Your task to perform on an android device: change timer sound Image 0: 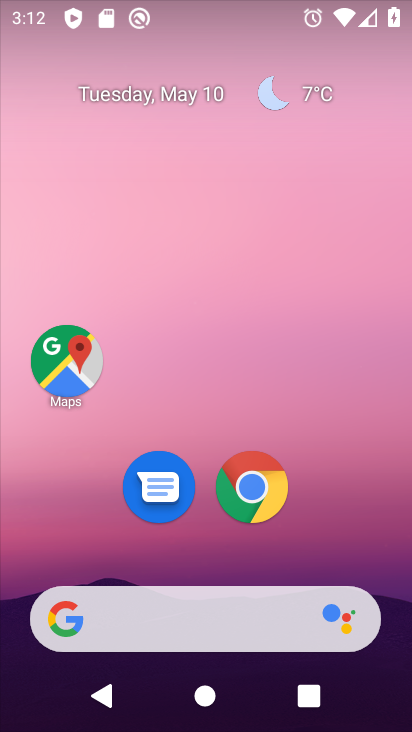
Step 0: drag from (343, 496) to (245, 121)
Your task to perform on an android device: change timer sound Image 1: 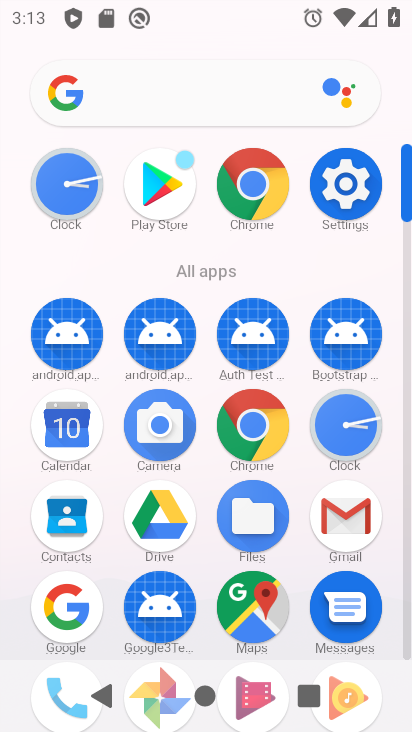
Step 1: click (354, 180)
Your task to perform on an android device: change timer sound Image 2: 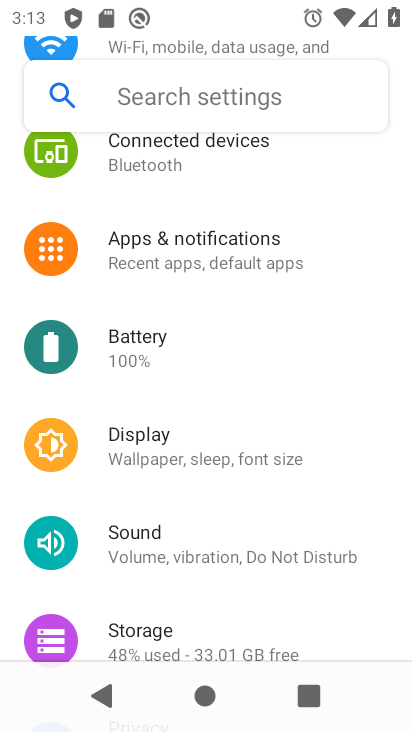
Step 2: drag from (233, 548) to (195, 596)
Your task to perform on an android device: change timer sound Image 3: 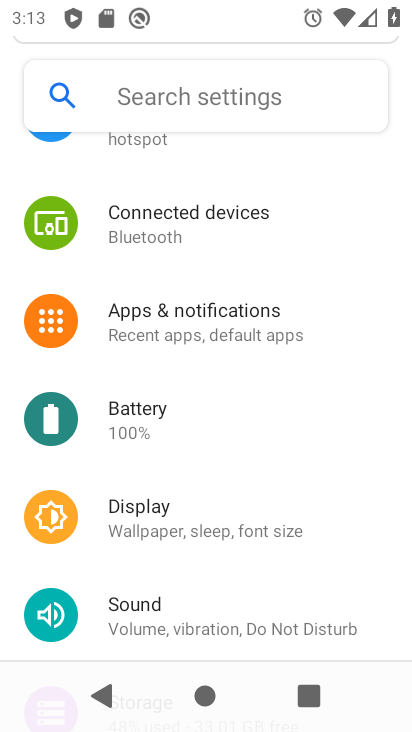
Step 3: click (148, 611)
Your task to perform on an android device: change timer sound Image 4: 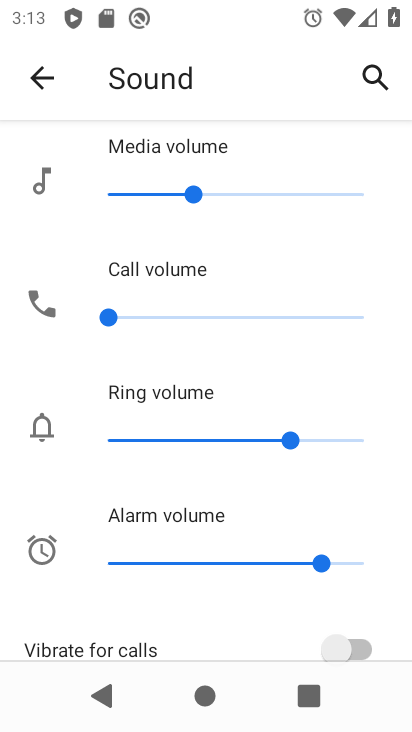
Step 4: task complete